Your task to perform on an android device: toggle translation in the chrome app Image 0: 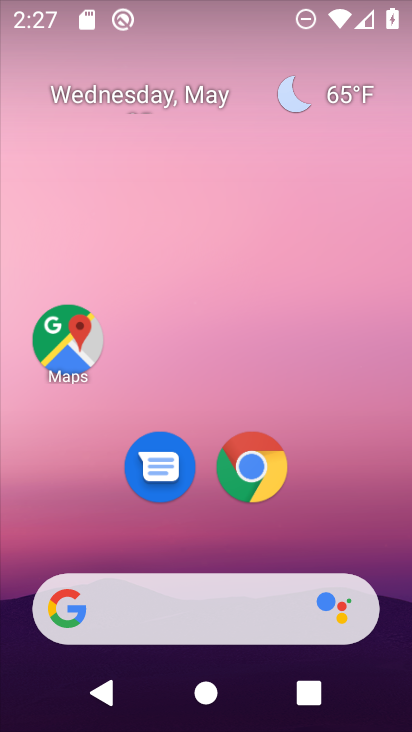
Step 0: click (246, 450)
Your task to perform on an android device: toggle translation in the chrome app Image 1: 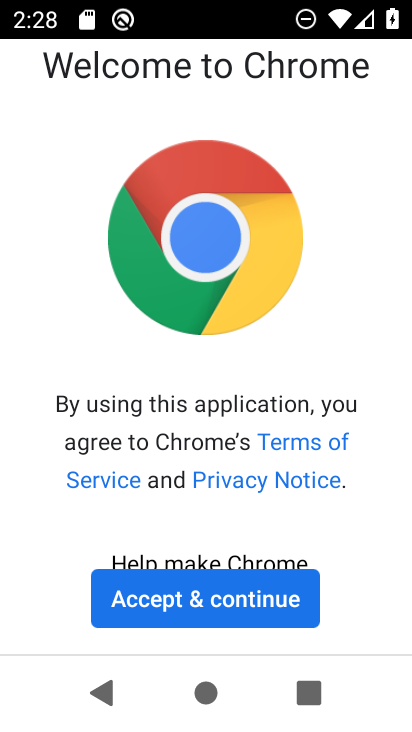
Step 1: click (282, 596)
Your task to perform on an android device: toggle translation in the chrome app Image 2: 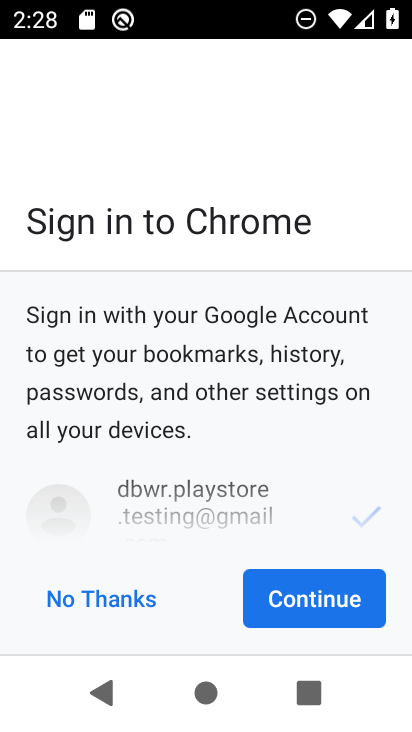
Step 2: click (282, 596)
Your task to perform on an android device: toggle translation in the chrome app Image 3: 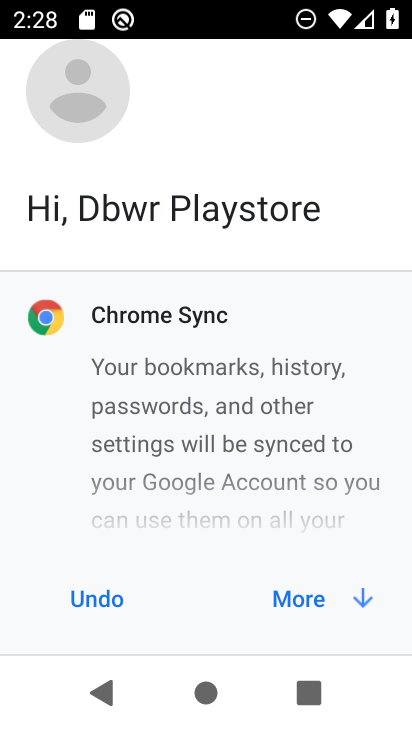
Step 3: click (283, 600)
Your task to perform on an android device: toggle translation in the chrome app Image 4: 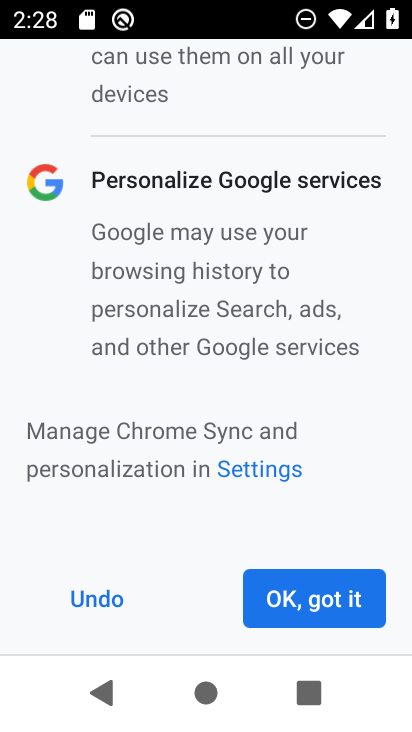
Step 4: click (316, 587)
Your task to perform on an android device: toggle translation in the chrome app Image 5: 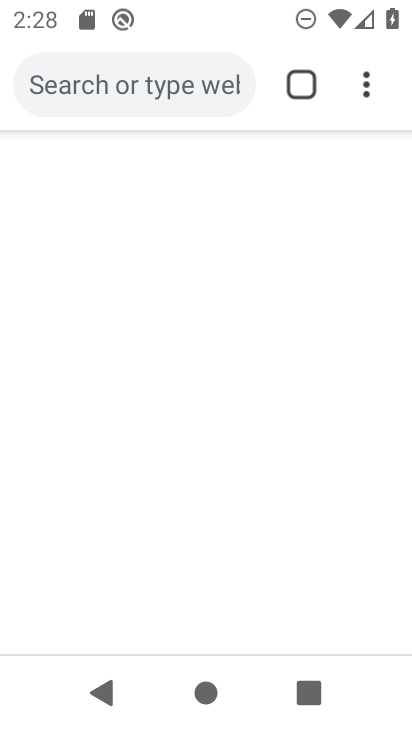
Step 5: click (381, 72)
Your task to perform on an android device: toggle translation in the chrome app Image 6: 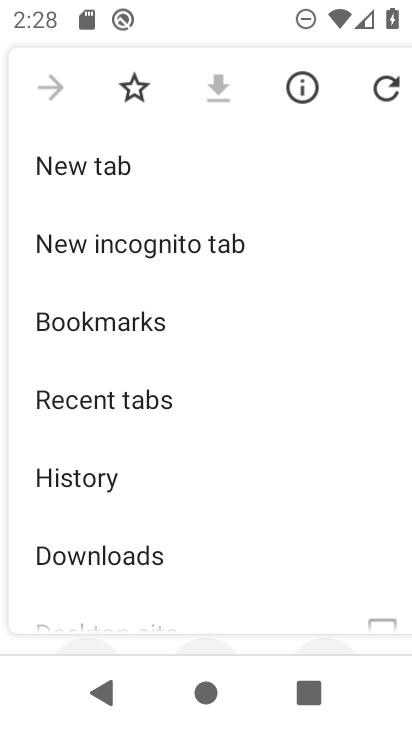
Step 6: drag from (251, 553) to (249, 226)
Your task to perform on an android device: toggle translation in the chrome app Image 7: 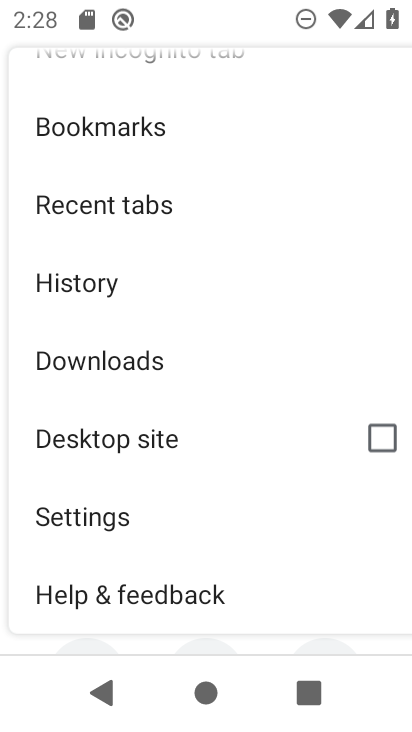
Step 7: click (105, 509)
Your task to perform on an android device: toggle translation in the chrome app Image 8: 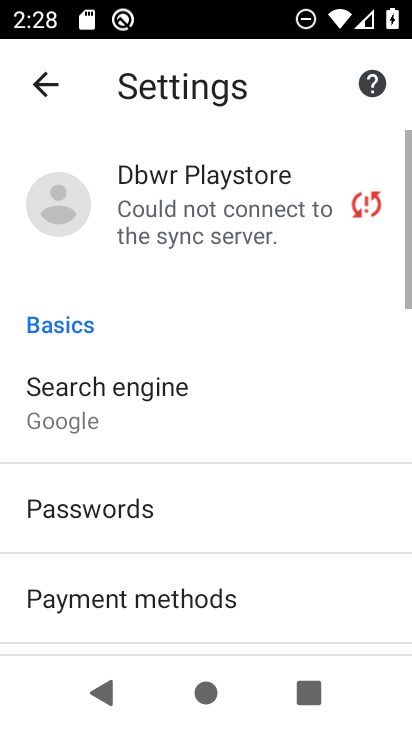
Step 8: drag from (215, 578) to (262, 248)
Your task to perform on an android device: toggle translation in the chrome app Image 9: 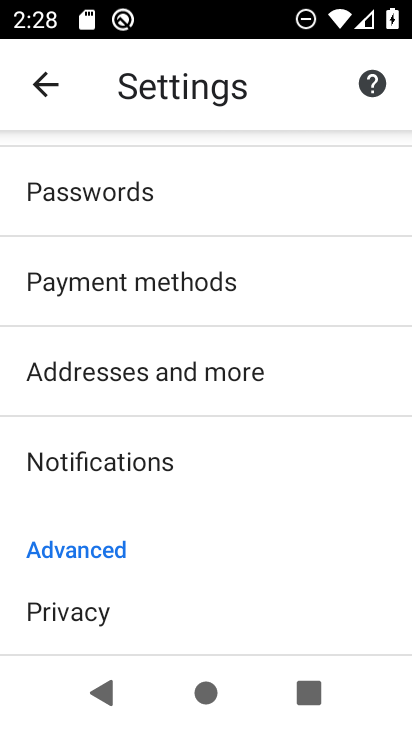
Step 9: drag from (186, 529) to (212, 241)
Your task to perform on an android device: toggle translation in the chrome app Image 10: 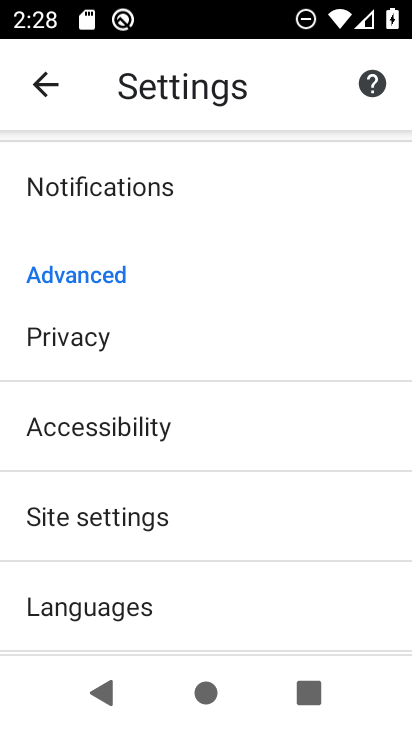
Step 10: click (143, 512)
Your task to perform on an android device: toggle translation in the chrome app Image 11: 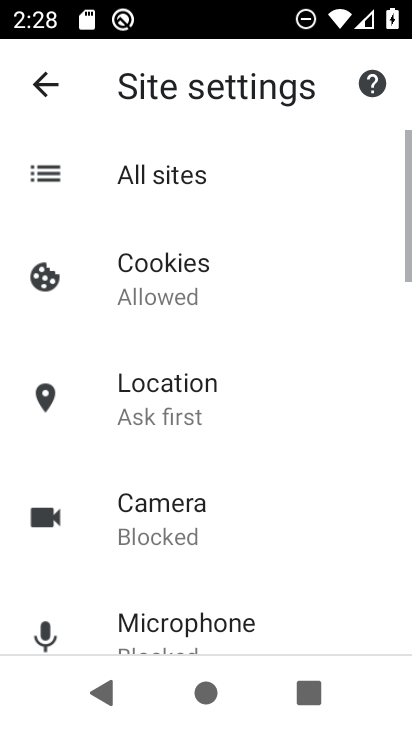
Step 11: click (37, 101)
Your task to perform on an android device: toggle translation in the chrome app Image 12: 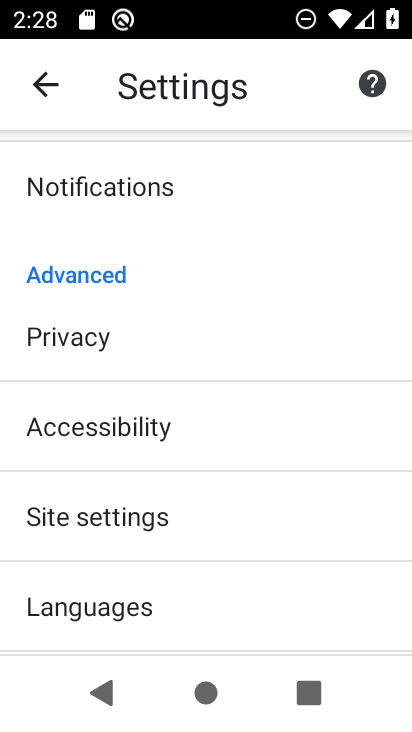
Step 12: drag from (232, 551) to (269, 291)
Your task to perform on an android device: toggle translation in the chrome app Image 13: 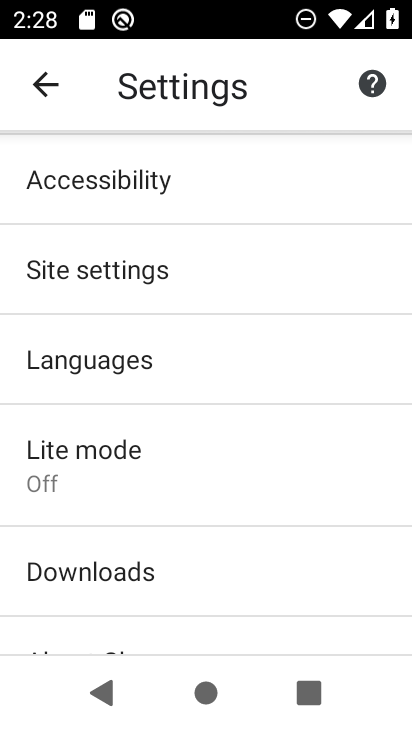
Step 13: click (148, 457)
Your task to perform on an android device: toggle translation in the chrome app Image 14: 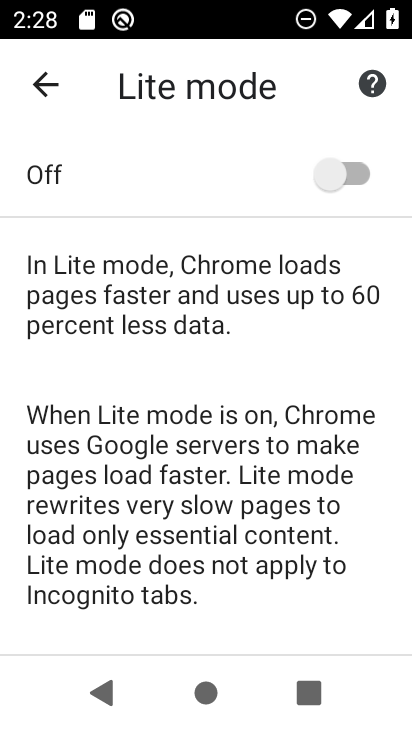
Step 14: click (381, 157)
Your task to perform on an android device: toggle translation in the chrome app Image 15: 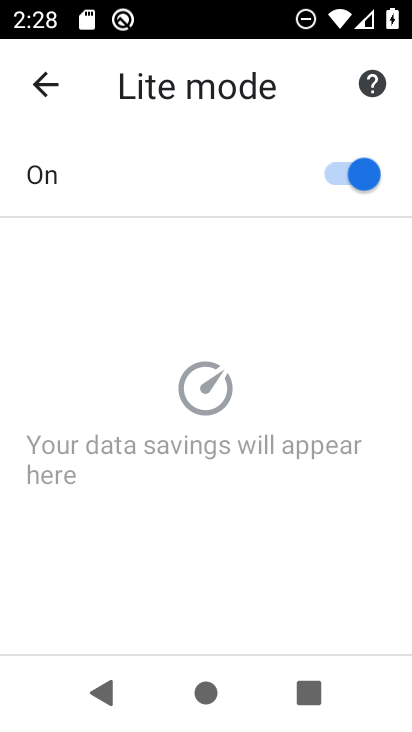
Step 15: task complete